Your task to perform on an android device: allow cookies in the chrome app Image 0: 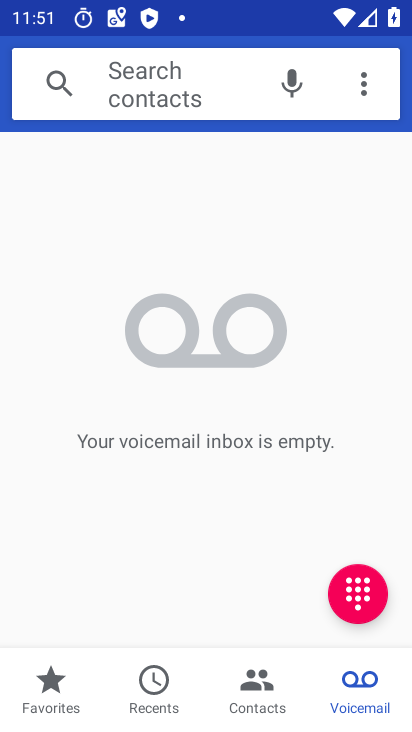
Step 0: press home button
Your task to perform on an android device: allow cookies in the chrome app Image 1: 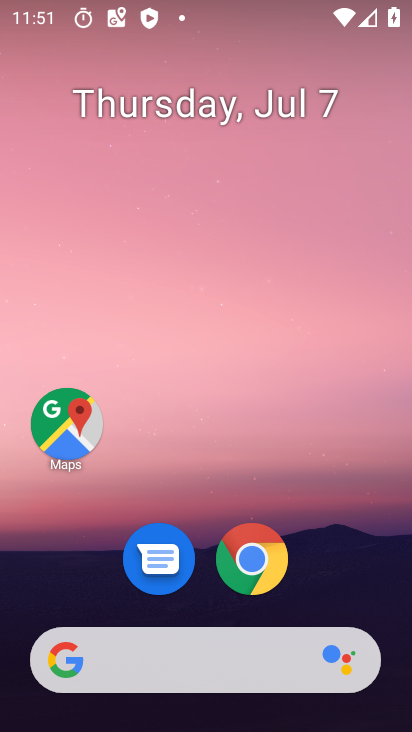
Step 1: drag from (354, 524) to (373, 146)
Your task to perform on an android device: allow cookies in the chrome app Image 2: 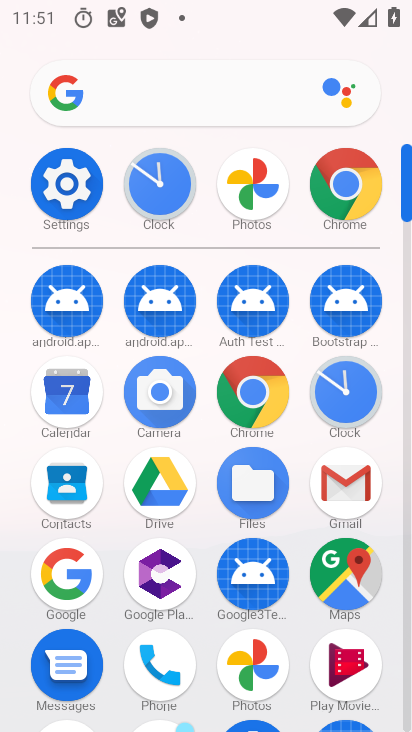
Step 2: click (281, 403)
Your task to perform on an android device: allow cookies in the chrome app Image 3: 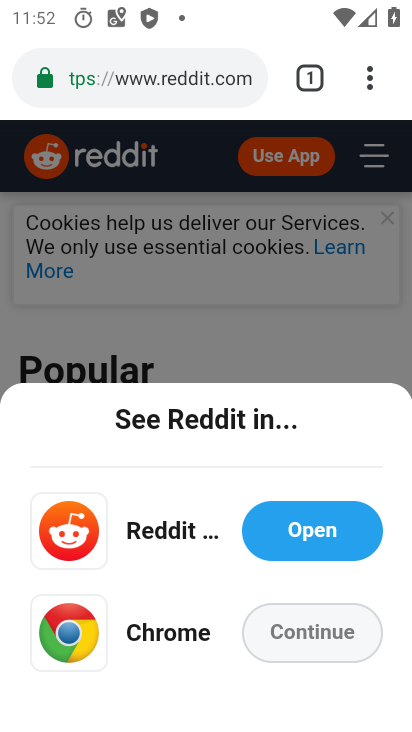
Step 3: click (364, 84)
Your task to perform on an android device: allow cookies in the chrome app Image 4: 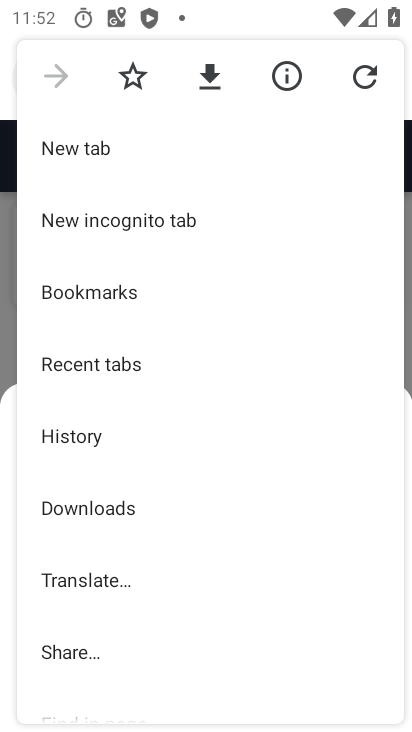
Step 4: drag from (290, 529) to (303, 290)
Your task to perform on an android device: allow cookies in the chrome app Image 5: 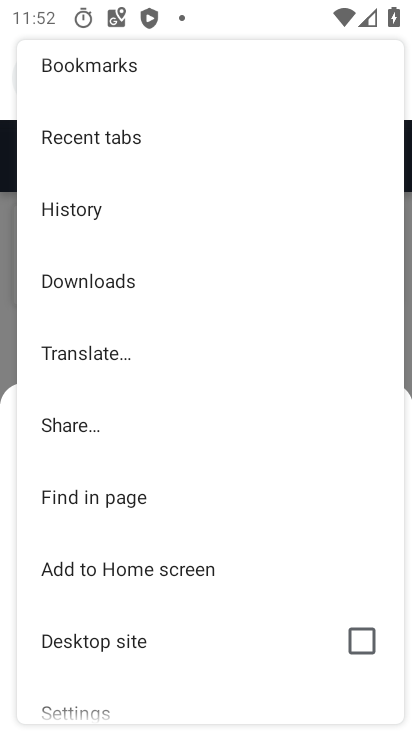
Step 5: drag from (290, 571) to (290, 385)
Your task to perform on an android device: allow cookies in the chrome app Image 6: 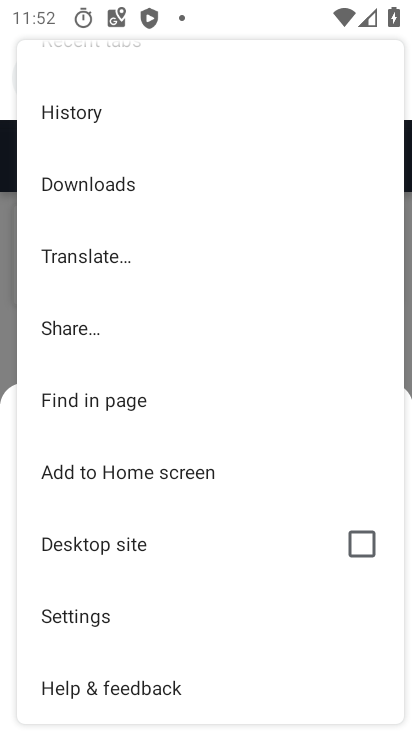
Step 6: click (91, 624)
Your task to perform on an android device: allow cookies in the chrome app Image 7: 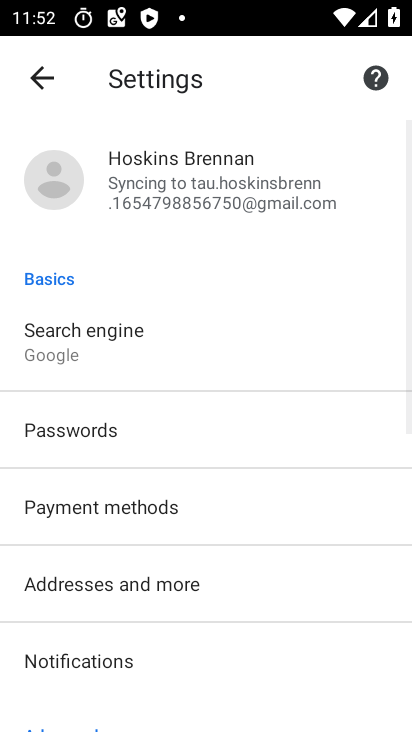
Step 7: drag from (286, 580) to (292, 413)
Your task to perform on an android device: allow cookies in the chrome app Image 8: 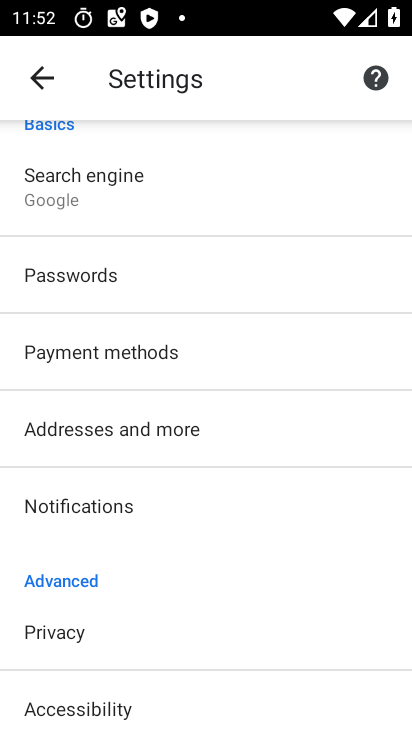
Step 8: drag from (323, 614) to (334, 465)
Your task to perform on an android device: allow cookies in the chrome app Image 9: 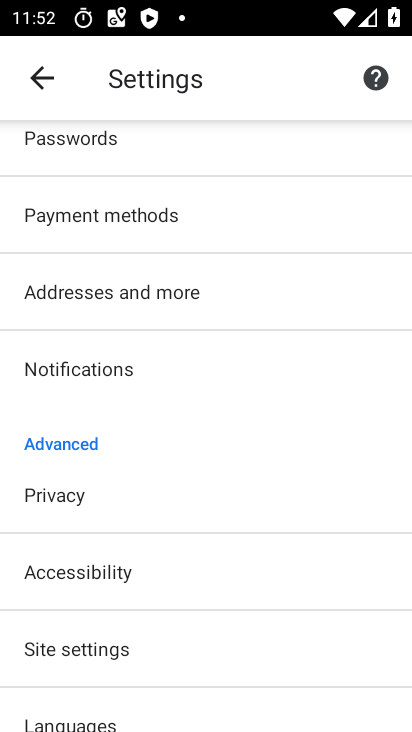
Step 9: drag from (288, 625) to (300, 459)
Your task to perform on an android device: allow cookies in the chrome app Image 10: 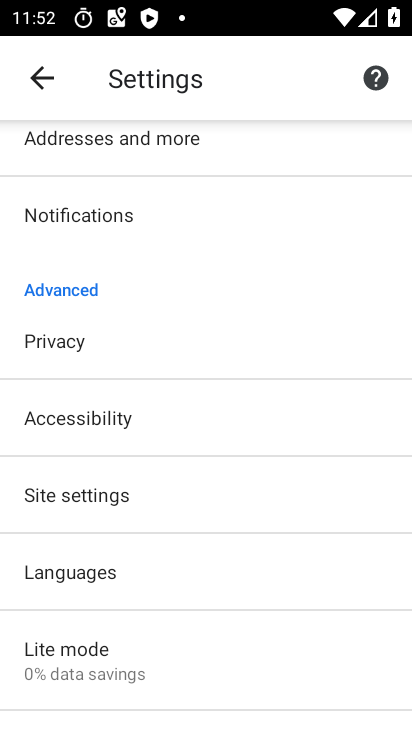
Step 10: click (248, 493)
Your task to perform on an android device: allow cookies in the chrome app Image 11: 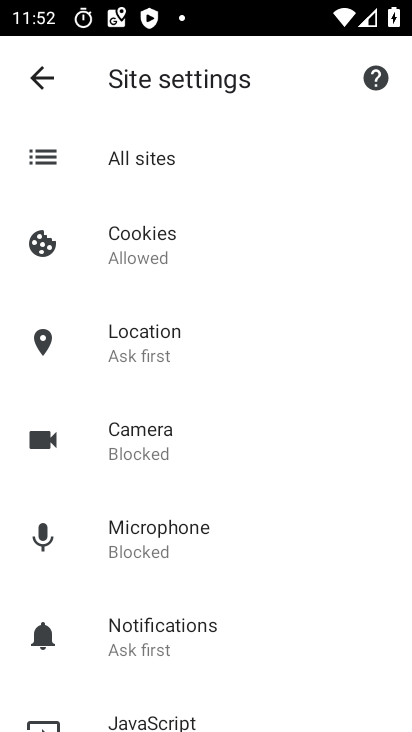
Step 11: click (247, 242)
Your task to perform on an android device: allow cookies in the chrome app Image 12: 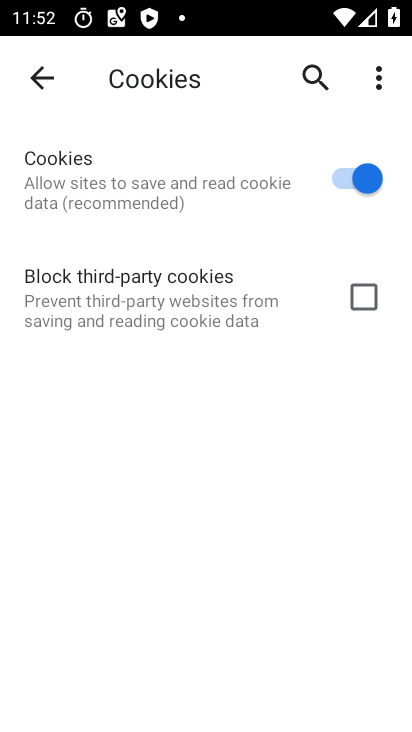
Step 12: task complete